Your task to perform on an android device: Open the phone app and click the voicemail tab. Image 0: 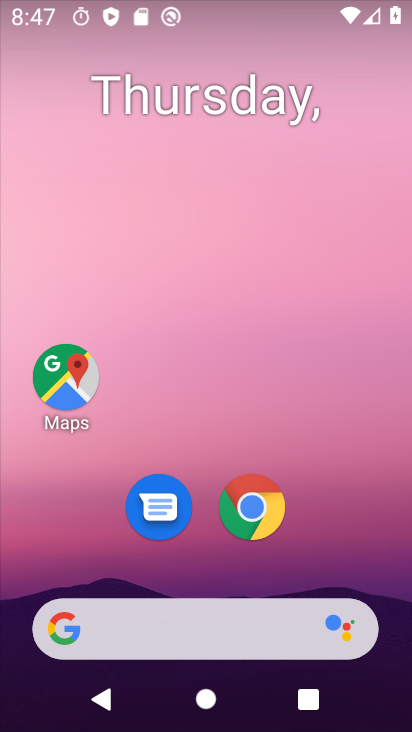
Step 0: drag from (200, 566) to (270, 17)
Your task to perform on an android device: Open the phone app and click the voicemail tab. Image 1: 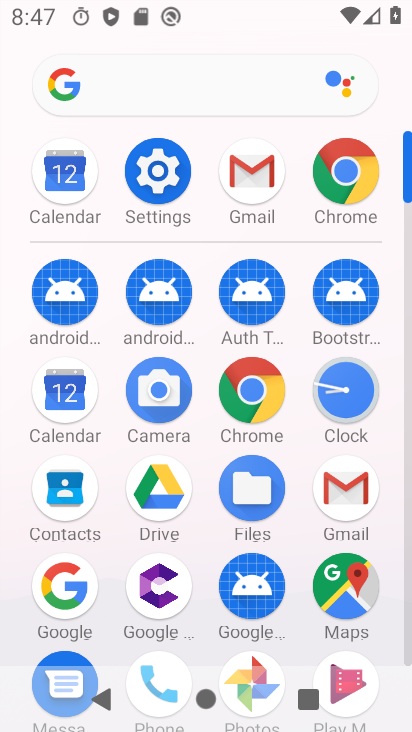
Step 1: drag from (226, 585) to (258, 273)
Your task to perform on an android device: Open the phone app and click the voicemail tab. Image 2: 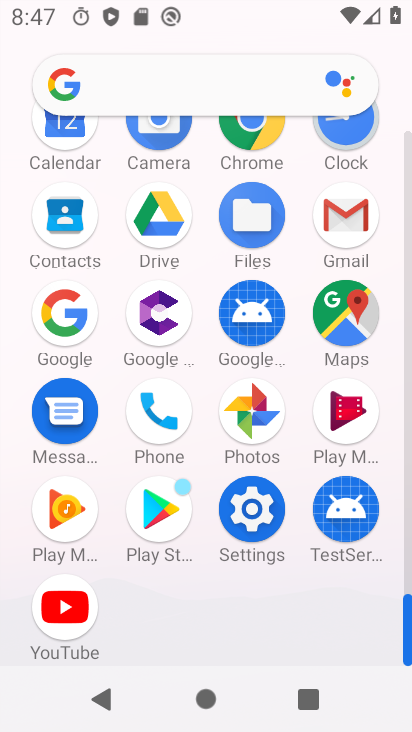
Step 2: click (147, 404)
Your task to perform on an android device: Open the phone app and click the voicemail tab. Image 3: 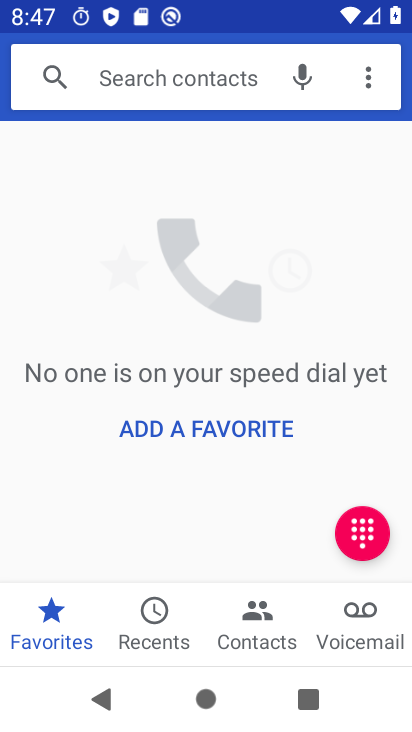
Step 3: click (348, 608)
Your task to perform on an android device: Open the phone app and click the voicemail tab. Image 4: 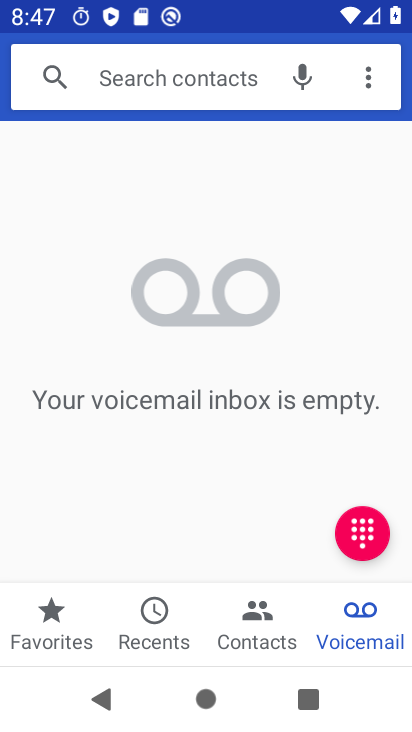
Step 4: task complete